Your task to perform on an android device: Do I have any events this weekend? Image 0: 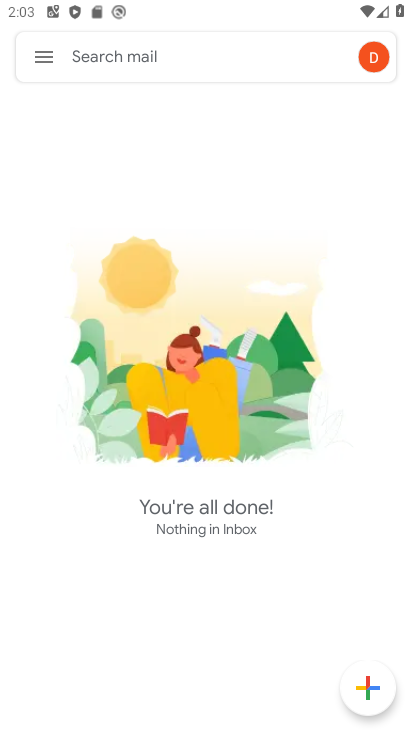
Step 0: press home button
Your task to perform on an android device: Do I have any events this weekend? Image 1: 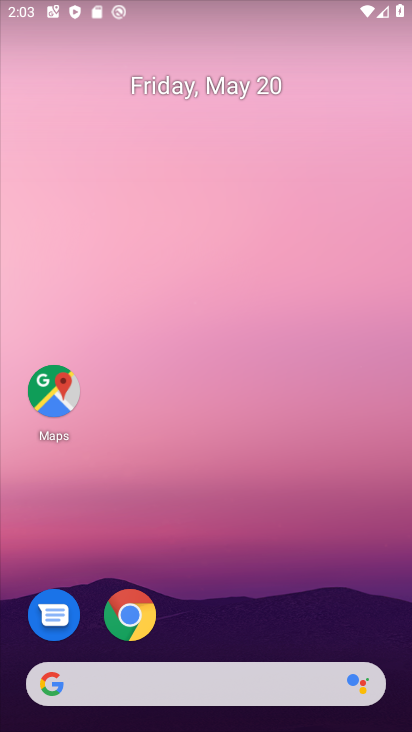
Step 1: drag from (278, 586) to (274, 246)
Your task to perform on an android device: Do I have any events this weekend? Image 2: 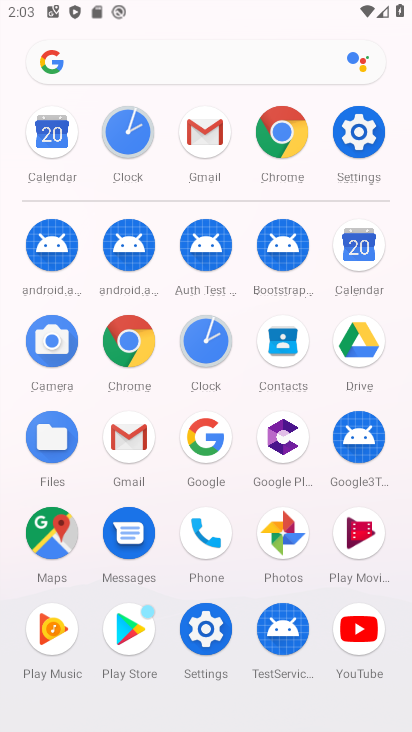
Step 2: click (354, 241)
Your task to perform on an android device: Do I have any events this weekend? Image 3: 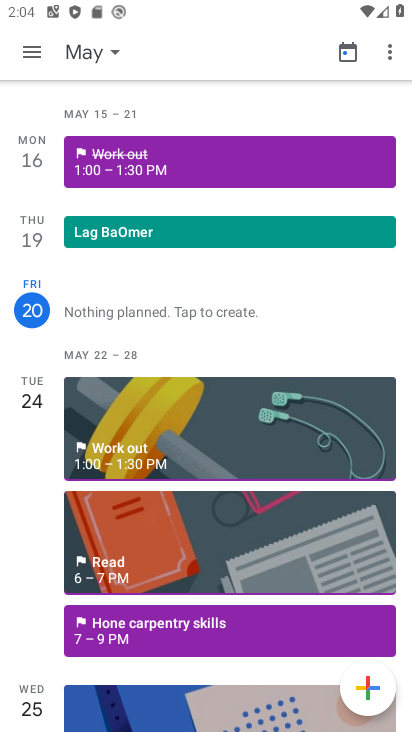
Step 3: task complete